Your task to perform on an android device: choose inbox layout in the gmail app Image 0: 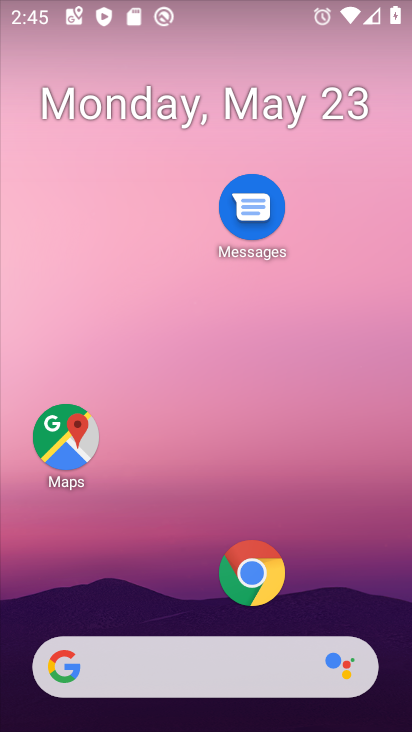
Step 0: drag from (335, 670) to (377, 46)
Your task to perform on an android device: choose inbox layout in the gmail app Image 1: 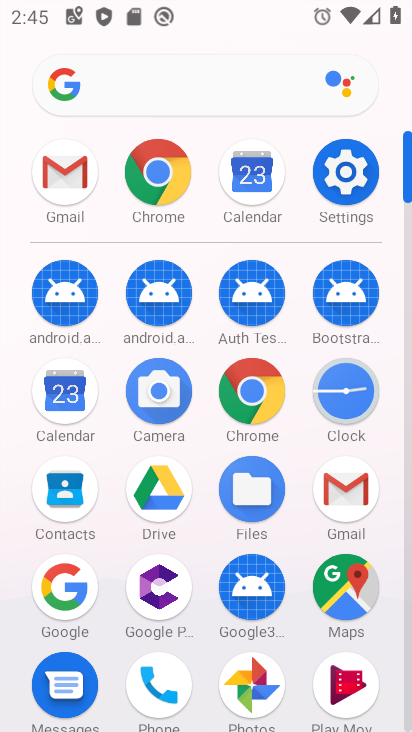
Step 1: click (348, 485)
Your task to perform on an android device: choose inbox layout in the gmail app Image 2: 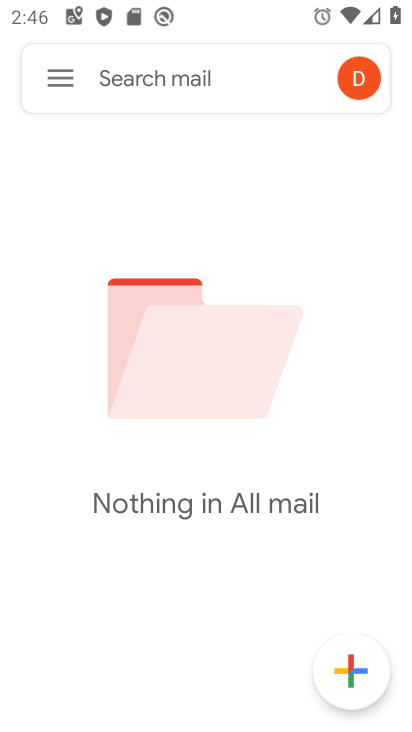
Step 2: click (56, 67)
Your task to perform on an android device: choose inbox layout in the gmail app Image 3: 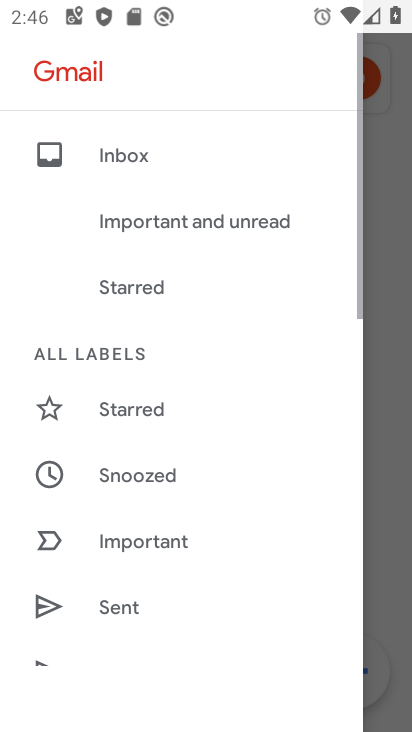
Step 3: drag from (169, 498) to (189, 61)
Your task to perform on an android device: choose inbox layout in the gmail app Image 4: 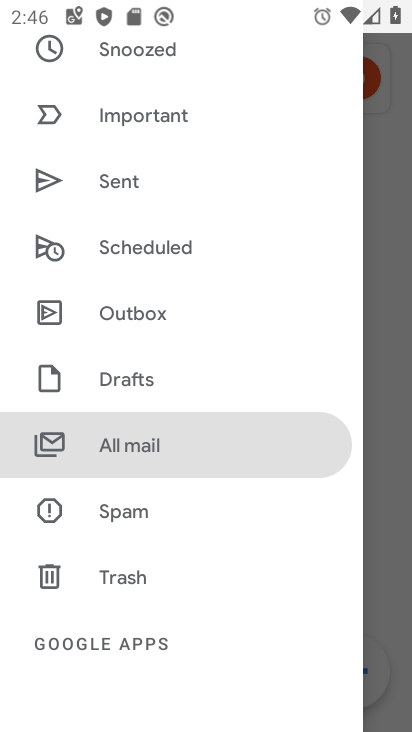
Step 4: drag from (167, 574) to (205, 193)
Your task to perform on an android device: choose inbox layout in the gmail app Image 5: 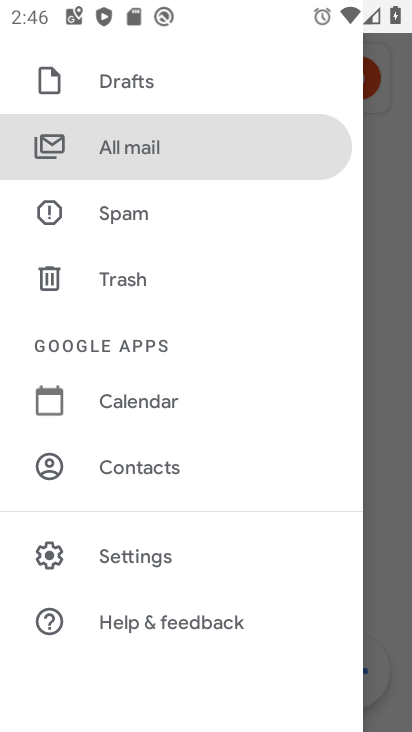
Step 5: click (171, 553)
Your task to perform on an android device: choose inbox layout in the gmail app Image 6: 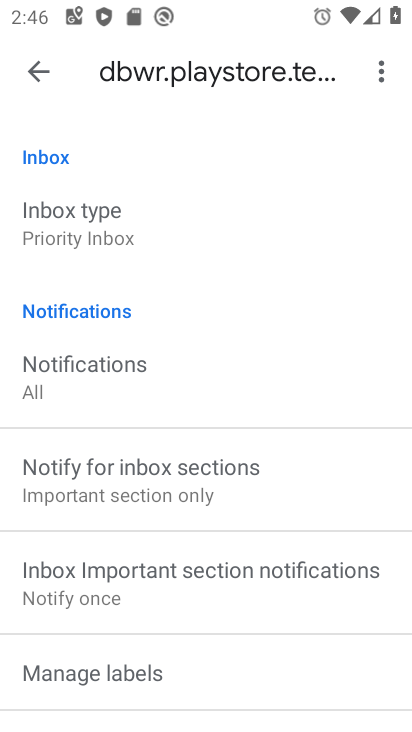
Step 6: click (135, 235)
Your task to perform on an android device: choose inbox layout in the gmail app Image 7: 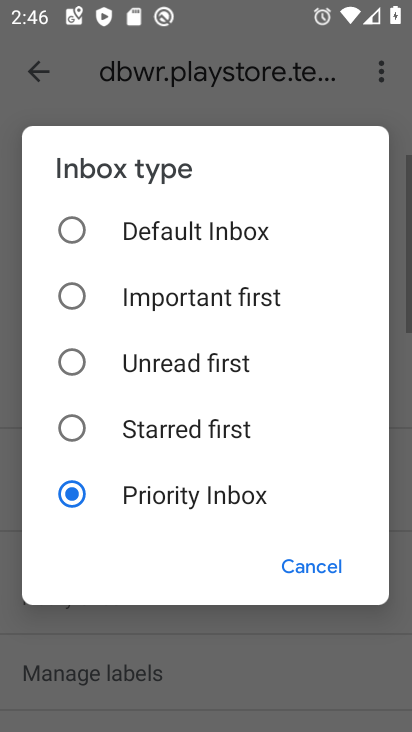
Step 7: click (126, 295)
Your task to perform on an android device: choose inbox layout in the gmail app Image 8: 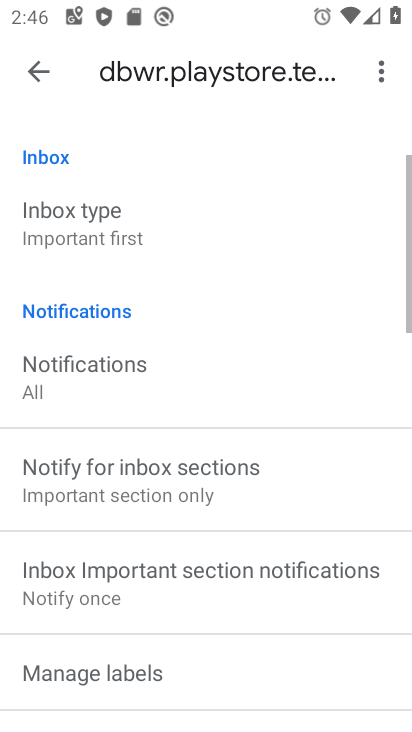
Step 8: task complete